Your task to perform on an android device: View the shopping cart on walmart.com. Search for lg ultragear on walmart.com, select the first entry, and add it to the cart. Image 0: 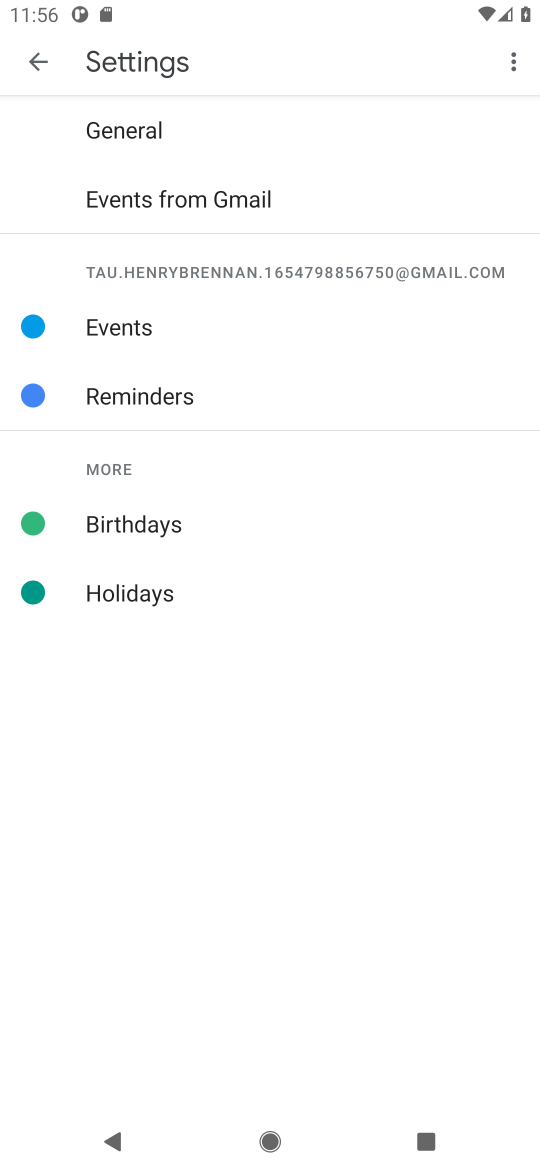
Step 0: press home button
Your task to perform on an android device: View the shopping cart on walmart.com. Search for lg ultragear on walmart.com, select the first entry, and add it to the cart. Image 1: 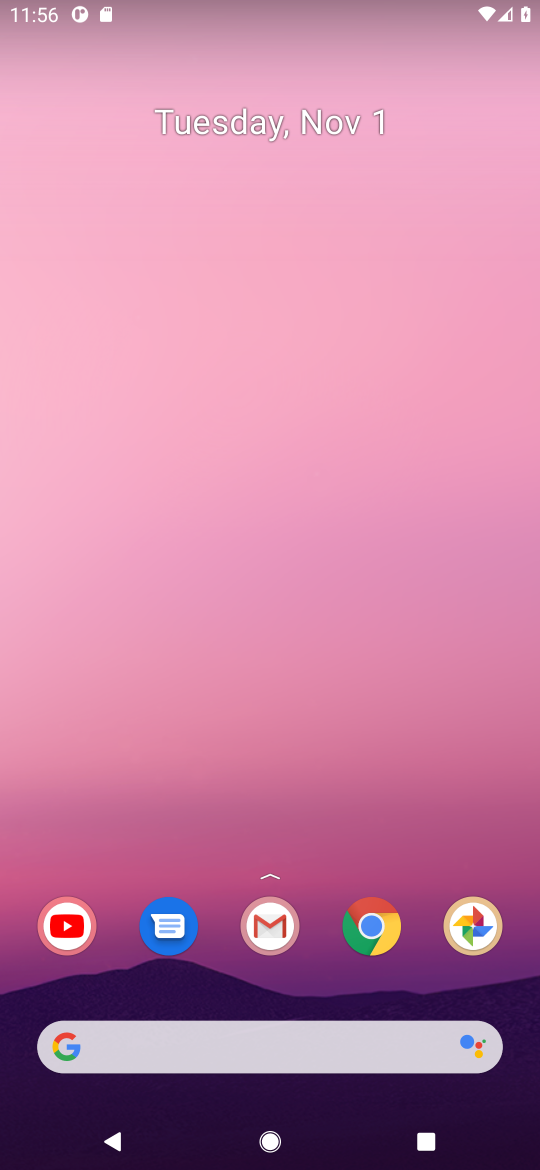
Step 1: click (380, 932)
Your task to perform on an android device: View the shopping cart on walmart.com. Search for lg ultragear on walmart.com, select the first entry, and add it to the cart. Image 2: 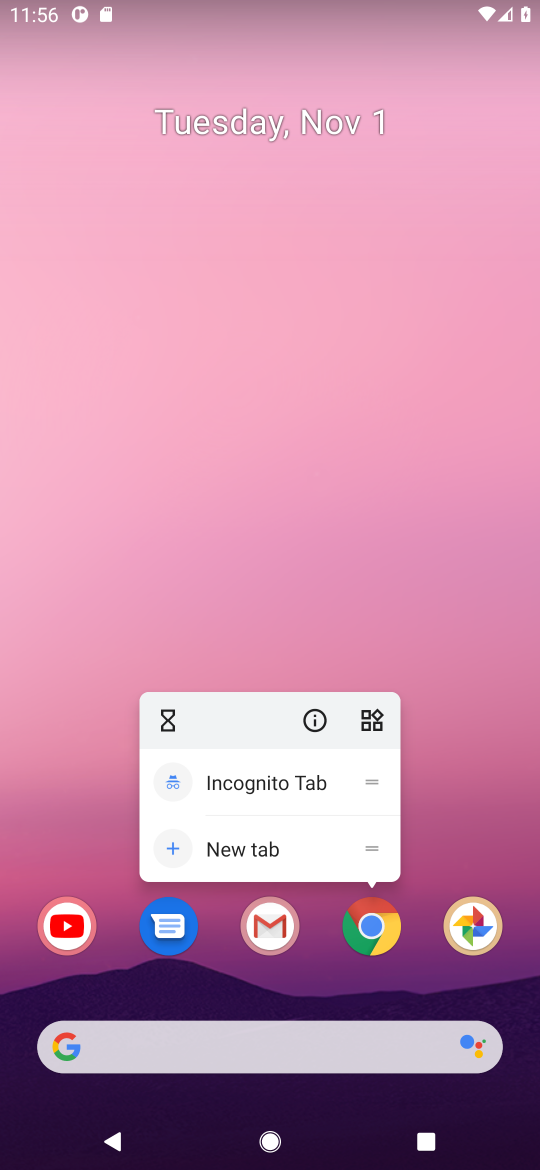
Step 2: click (382, 921)
Your task to perform on an android device: View the shopping cart on walmart.com. Search for lg ultragear on walmart.com, select the first entry, and add it to the cart. Image 3: 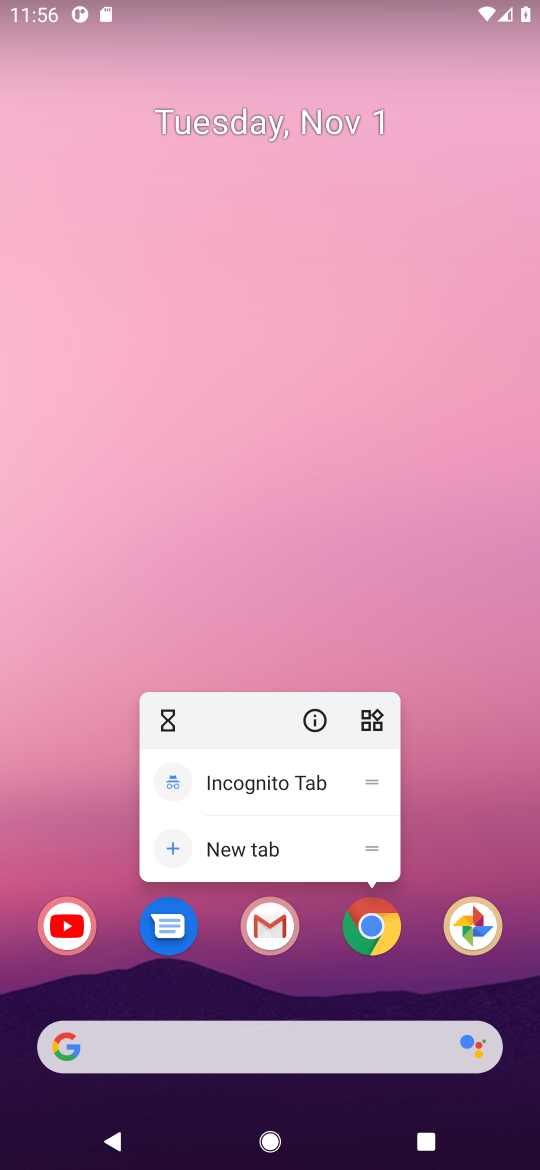
Step 3: click (372, 928)
Your task to perform on an android device: View the shopping cart on walmart.com. Search for lg ultragear on walmart.com, select the first entry, and add it to the cart. Image 4: 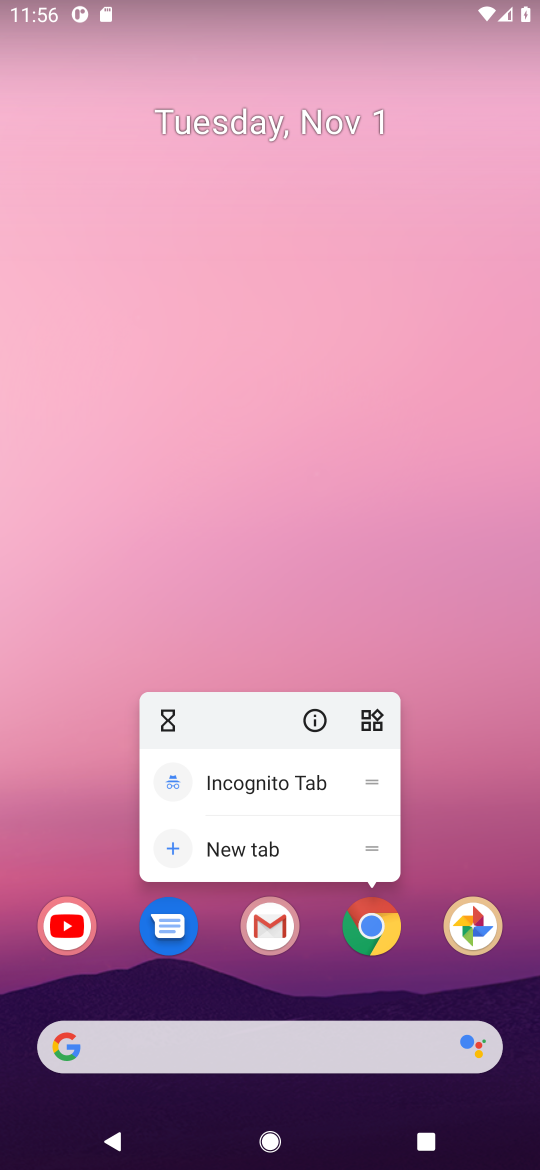
Step 4: click (376, 921)
Your task to perform on an android device: View the shopping cart on walmart.com. Search for lg ultragear on walmart.com, select the first entry, and add it to the cart. Image 5: 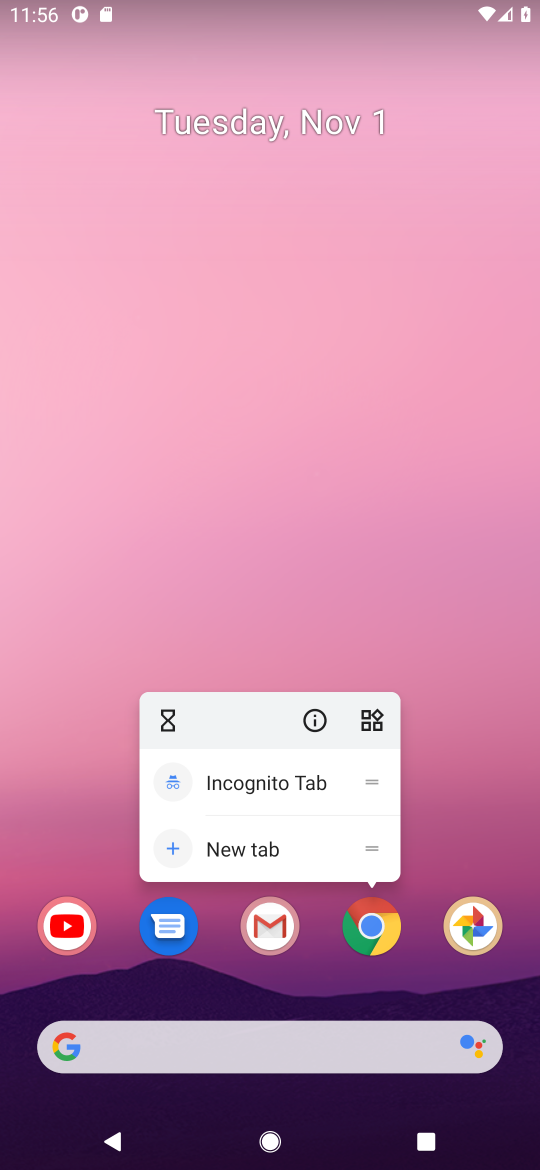
Step 5: click (368, 917)
Your task to perform on an android device: View the shopping cart on walmart.com. Search for lg ultragear on walmart.com, select the first entry, and add it to the cart. Image 6: 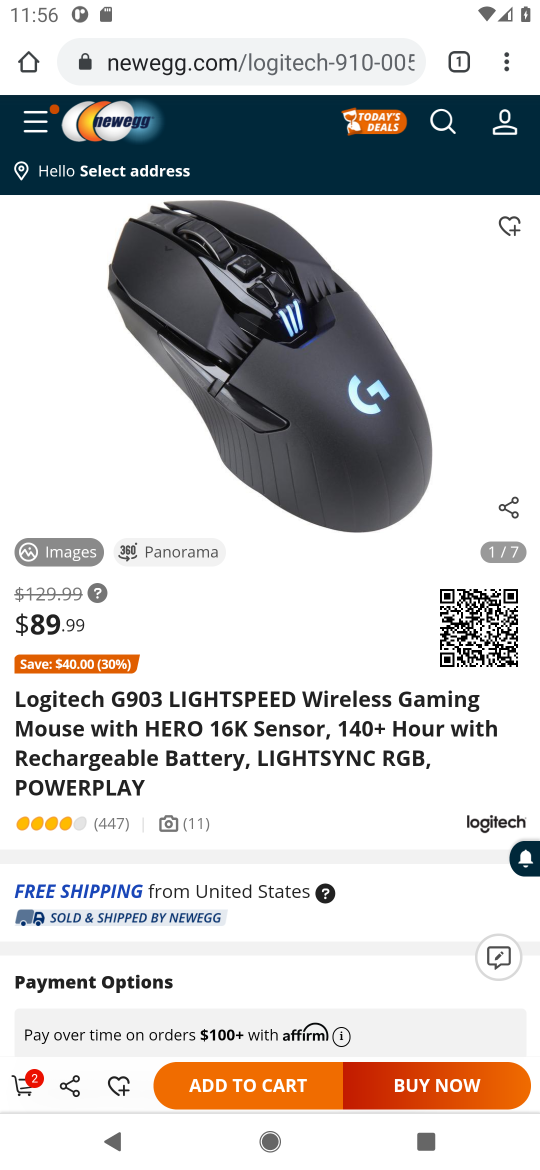
Step 6: click (328, 59)
Your task to perform on an android device: View the shopping cart on walmart.com. Search for lg ultragear on walmart.com, select the first entry, and add it to the cart. Image 7: 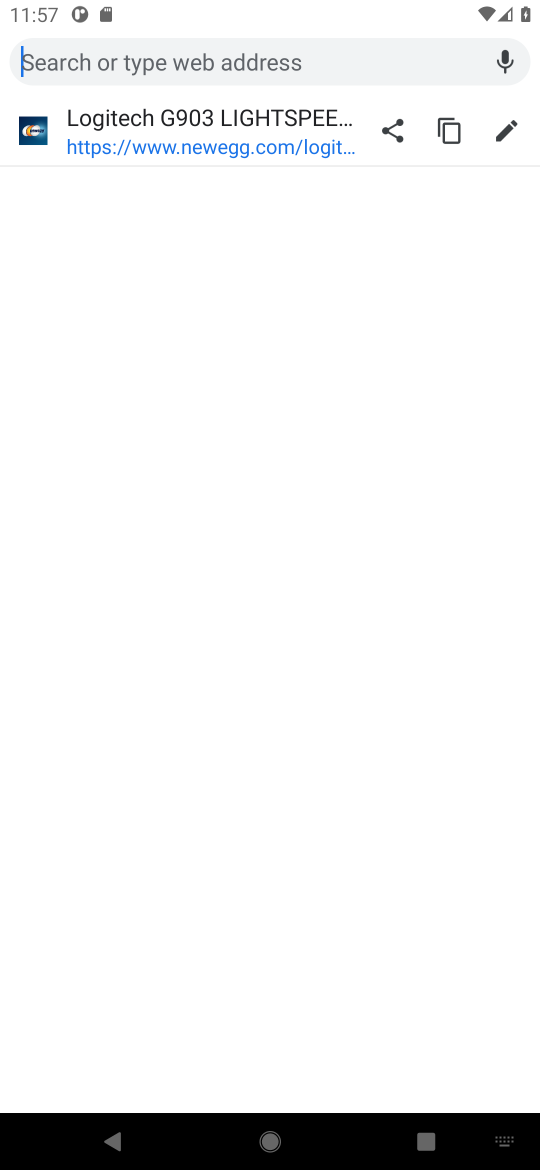
Step 7: type "walmart.com"
Your task to perform on an android device: View the shopping cart on walmart.com. Search for lg ultragear on walmart.com, select the first entry, and add it to the cart. Image 8: 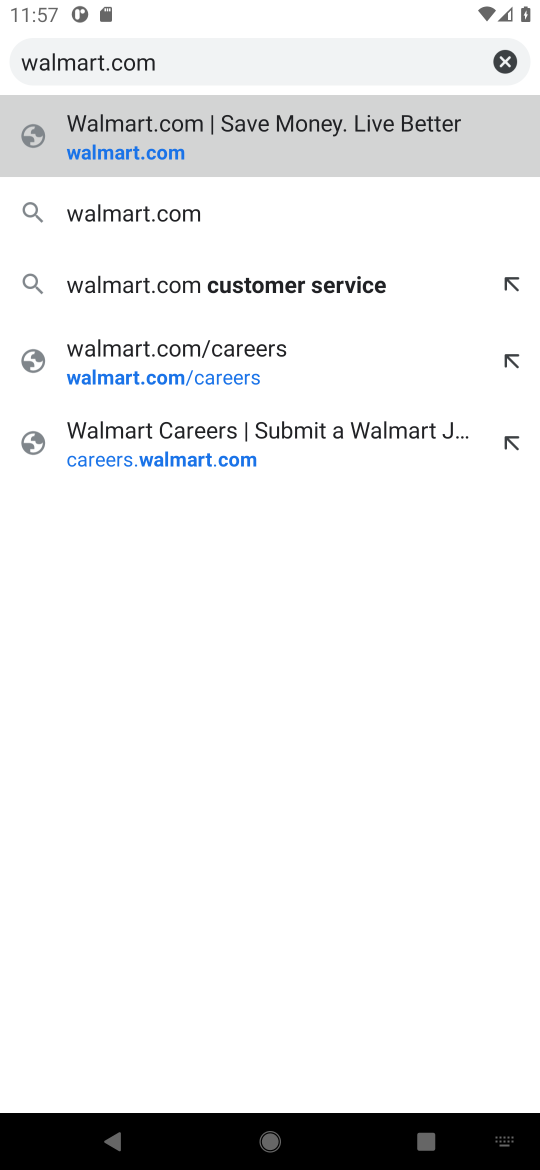
Step 8: press enter
Your task to perform on an android device: View the shopping cart on walmart.com. Search for lg ultragear on walmart.com, select the first entry, and add it to the cart. Image 9: 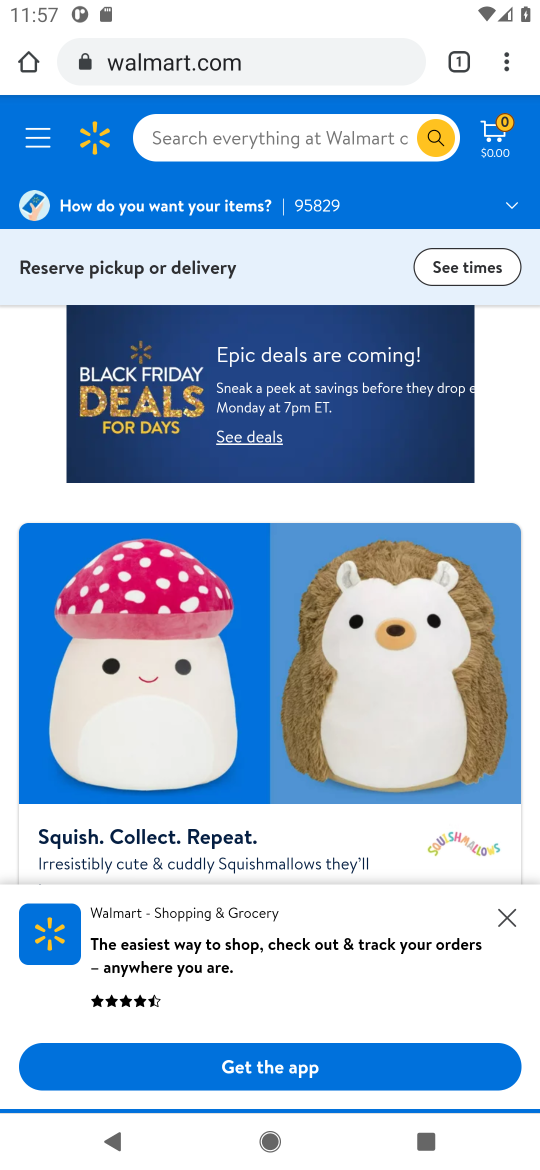
Step 9: click (349, 128)
Your task to perform on an android device: View the shopping cart on walmart.com. Search for lg ultragear on walmart.com, select the first entry, and add it to the cart. Image 10: 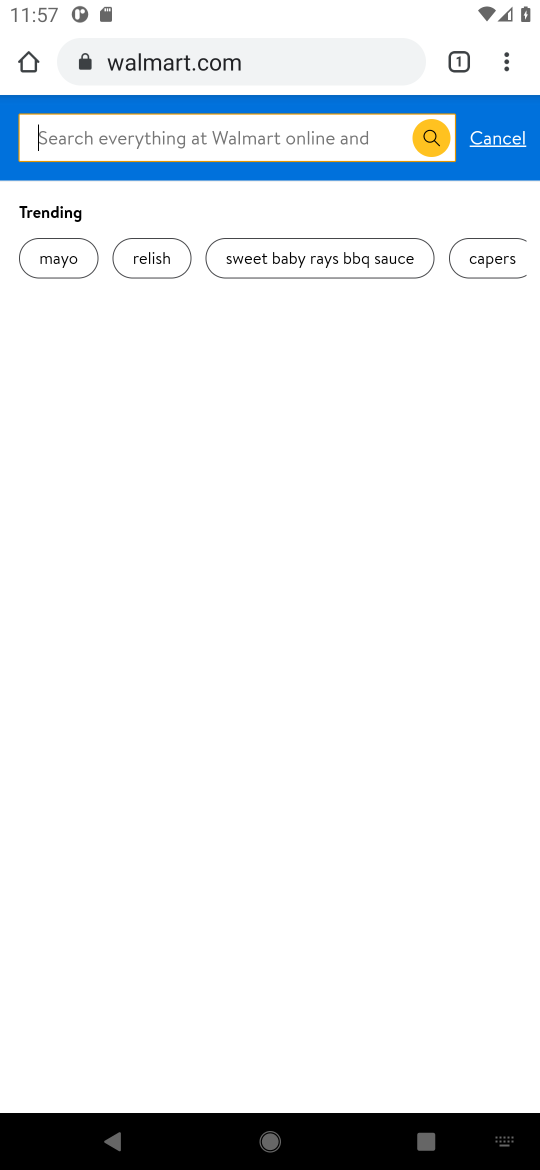
Step 10: type "lg ultragear"
Your task to perform on an android device: View the shopping cart on walmart.com. Search for lg ultragear on walmart.com, select the first entry, and add it to the cart. Image 11: 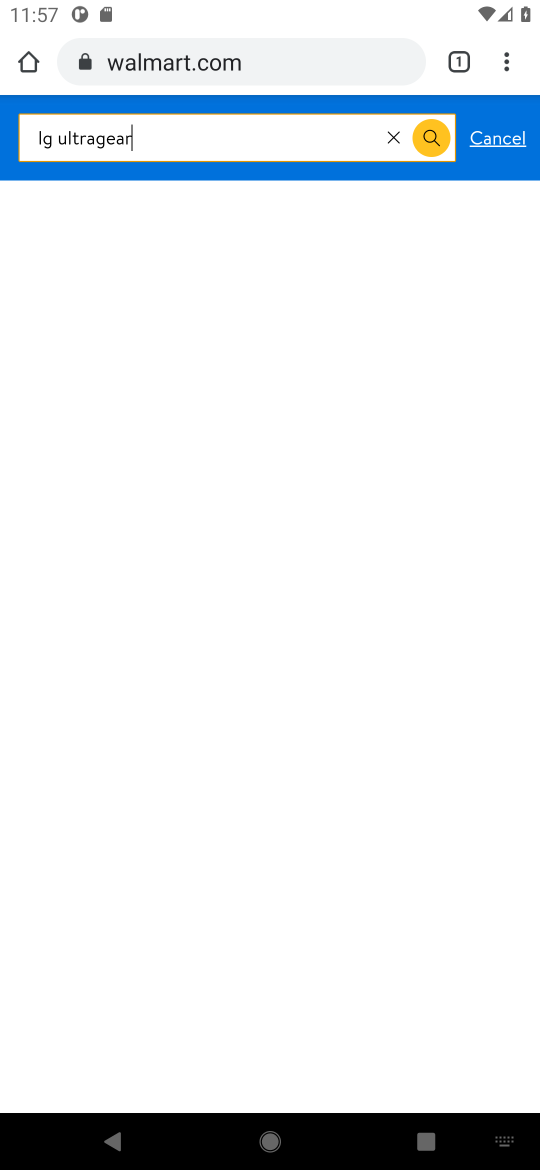
Step 11: press enter
Your task to perform on an android device: View the shopping cart on walmart.com. Search for lg ultragear on walmart.com, select the first entry, and add it to the cart. Image 12: 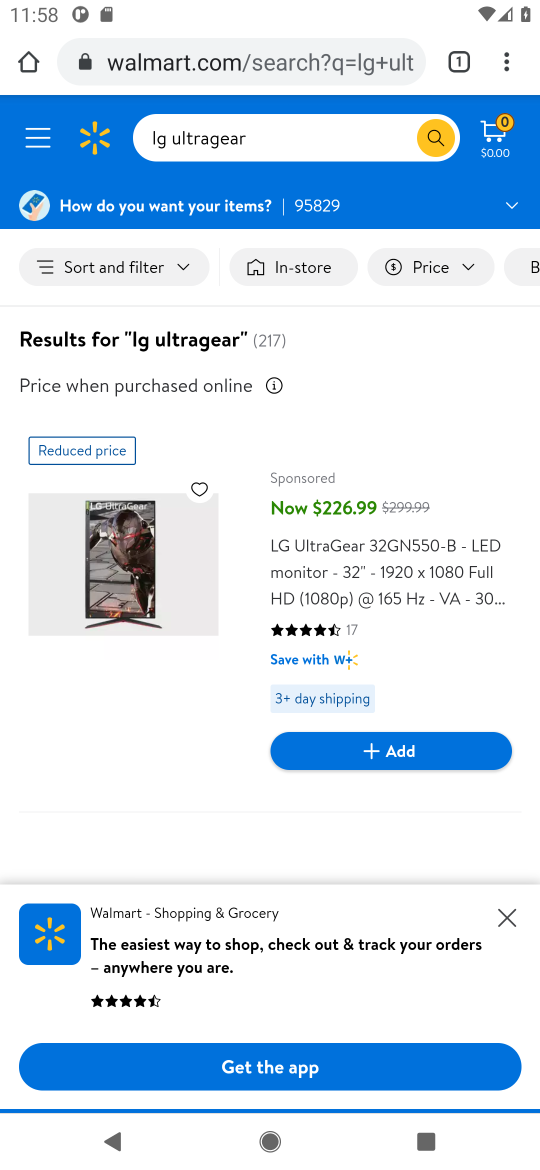
Step 12: click (402, 752)
Your task to perform on an android device: View the shopping cart on walmart.com. Search for lg ultragear on walmart.com, select the first entry, and add it to the cart. Image 13: 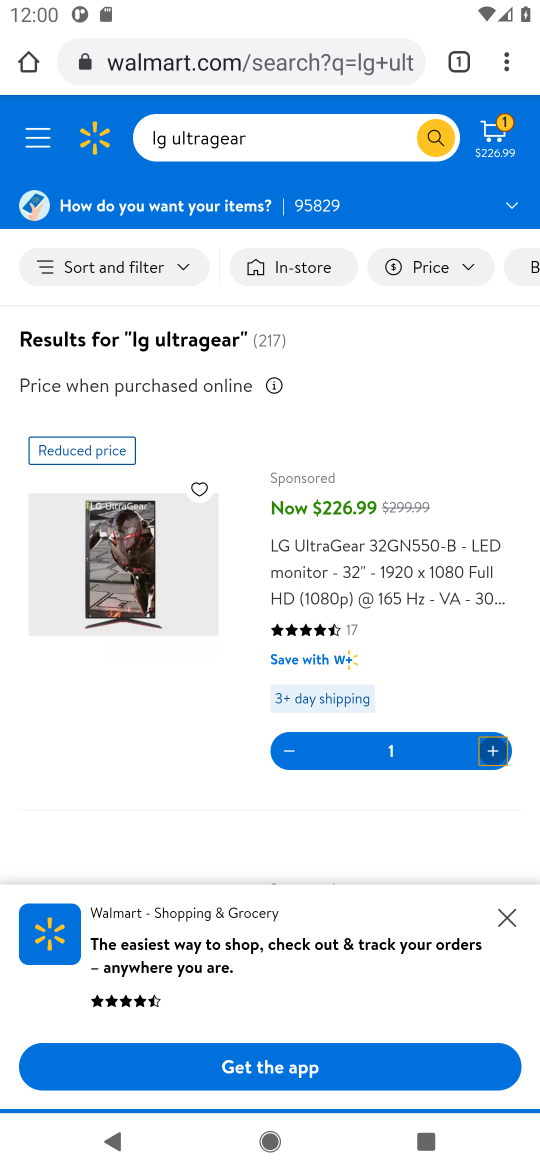
Step 13: task complete